Your task to perform on an android device: toggle airplane mode Image 0: 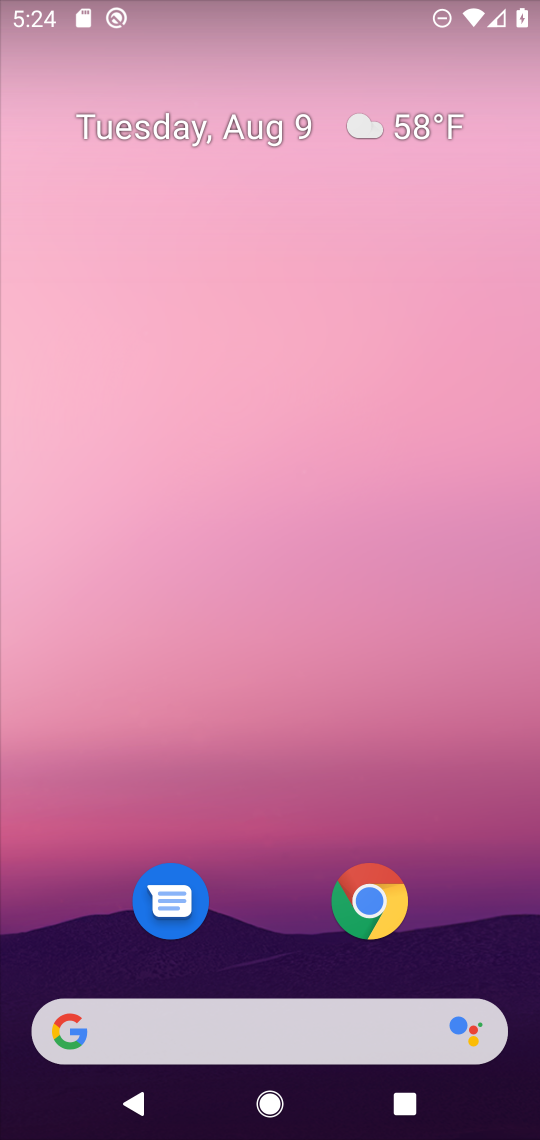
Step 0: drag from (320, 5) to (256, 885)
Your task to perform on an android device: toggle airplane mode Image 1: 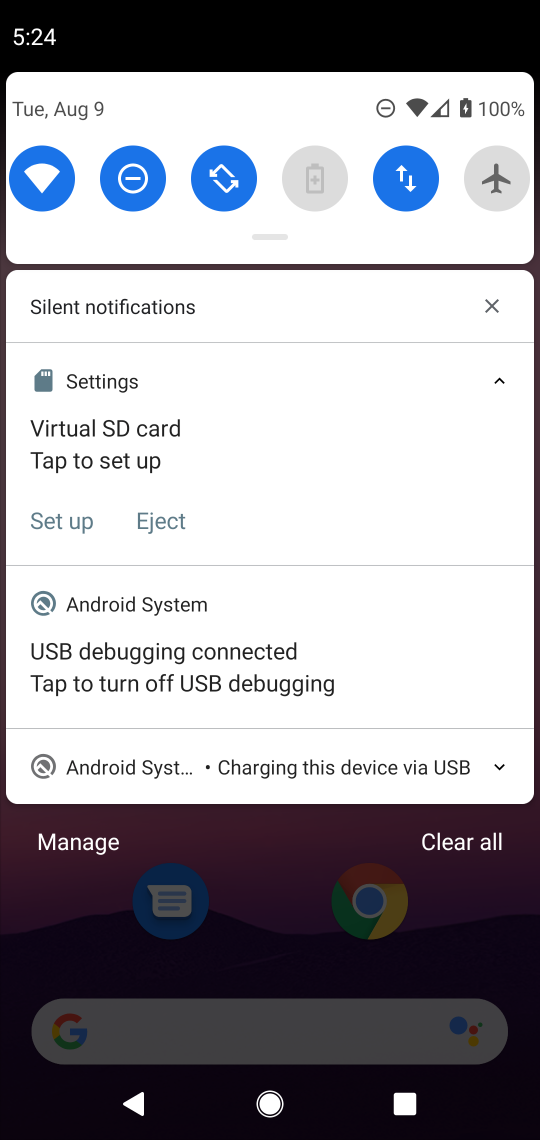
Step 1: click (497, 162)
Your task to perform on an android device: toggle airplane mode Image 2: 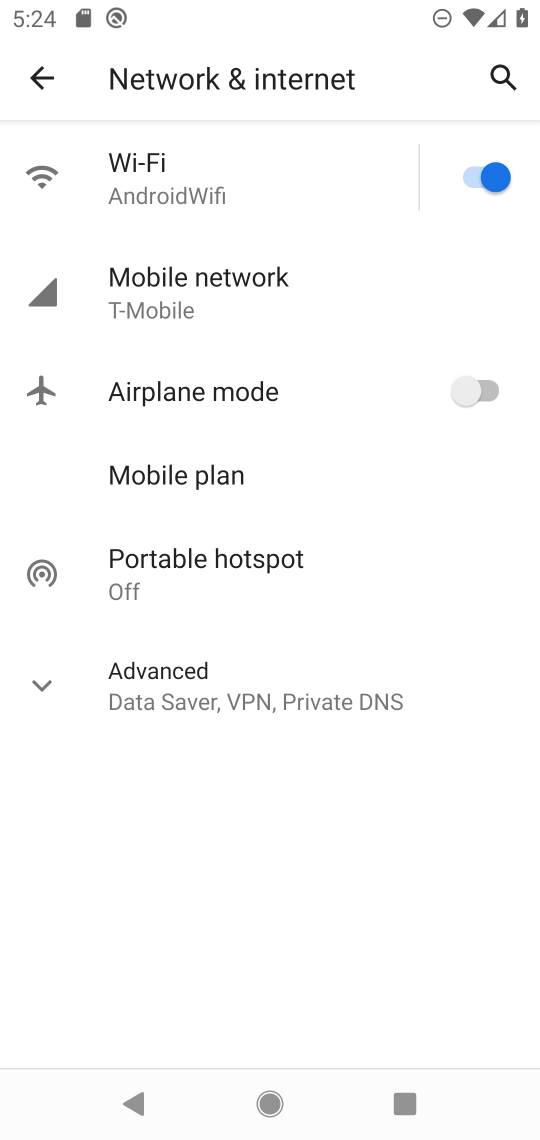
Step 2: task complete